Your task to perform on an android device: turn on improve location accuracy Image 0: 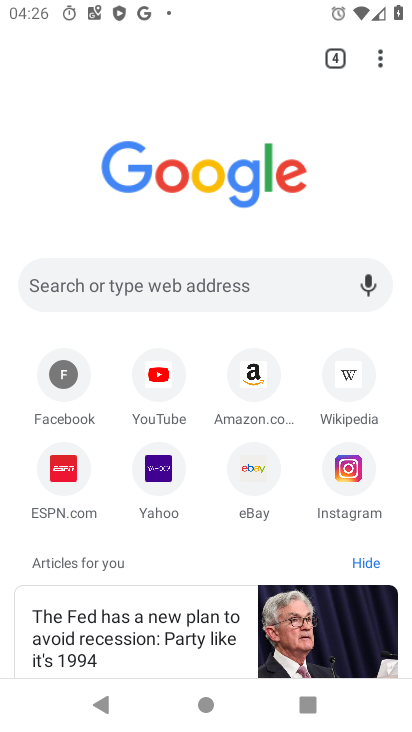
Step 0: click (376, 56)
Your task to perform on an android device: turn on improve location accuracy Image 1: 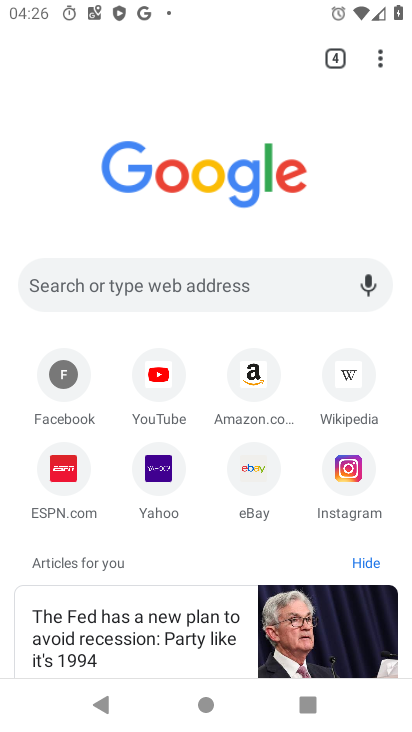
Step 1: click (378, 55)
Your task to perform on an android device: turn on improve location accuracy Image 2: 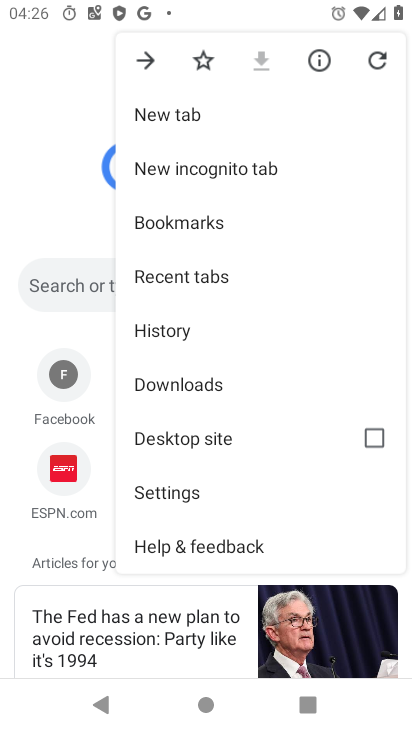
Step 2: click (177, 494)
Your task to perform on an android device: turn on improve location accuracy Image 3: 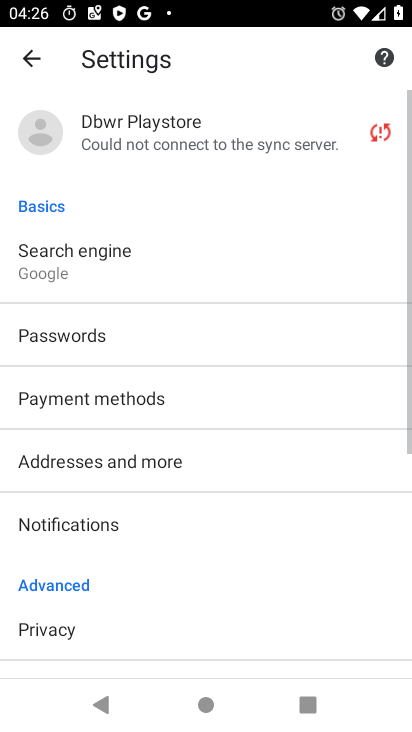
Step 3: press home button
Your task to perform on an android device: turn on improve location accuracy Image 4: 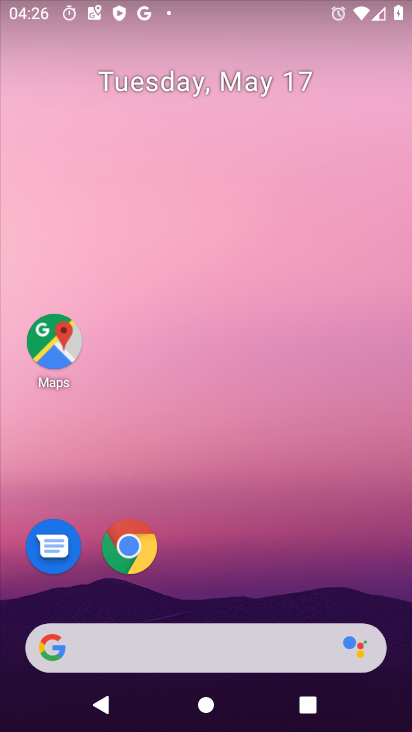
Step 4: click (391, 328)
Your task to perform on an android device: turn on improve location accuracy Image 5: 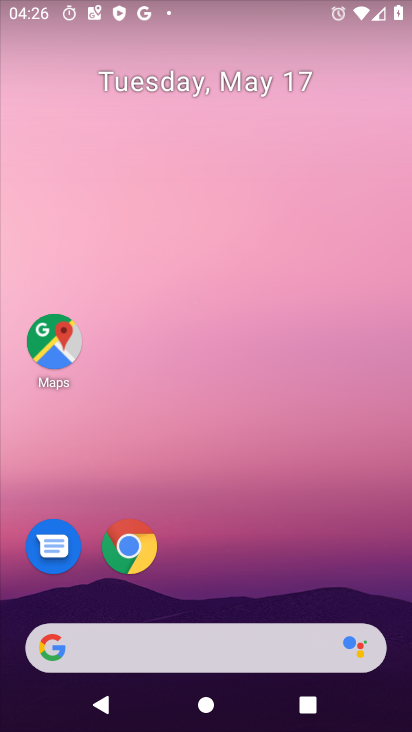
Step 5: drag from (395, 674) to (379, 242)
Your task to perform on an android device: turn on improve location accuracy Image 6: 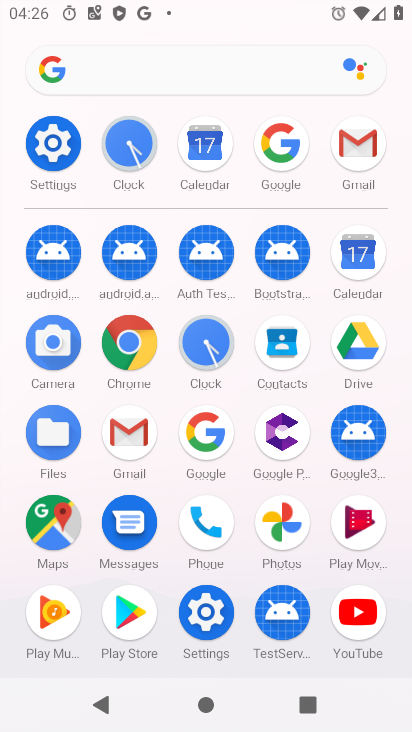
Step 6: click (63, 140)
Your task to perform on an android device: turn on improve location accuracy Image 7: 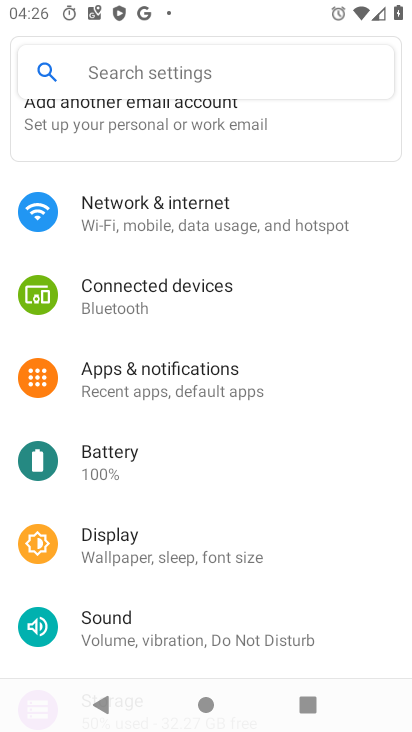
Step 7: drag from (343, 554) to (324, 328)
Your task to perform on an android device: turn on improve location accuracy Image 8: 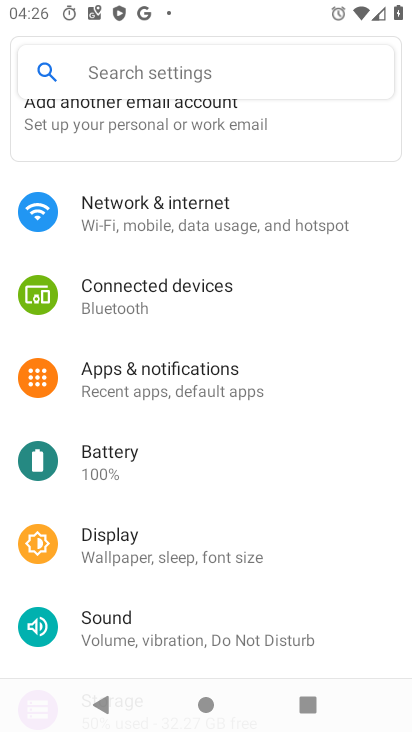
Step 8: drag from (346, 637) to (348, 351)
Your task to perform on an android device: turn on improve location accuracy Image 9: 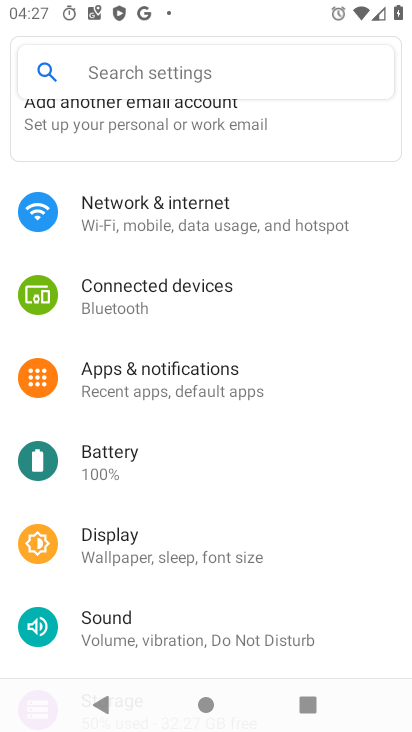
Step 9: drag from (347, 609) to (348, 317)
Your task to perform on an android device: turn on improve location accuracy Image 10: 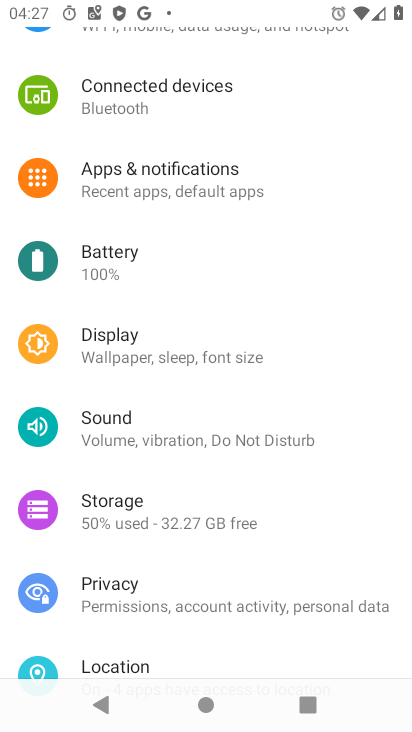
Step 10: click (131, 653)
Your task to perform on an android device: turn on improve location accuracy Image 11: 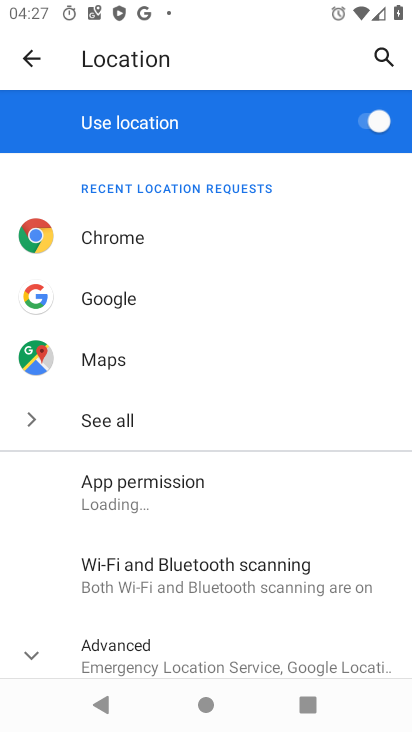
Step 11: drag from (332, 606) to (310, 340)
Your task to perform on an android device: turn on improve location accuracy Image 12: 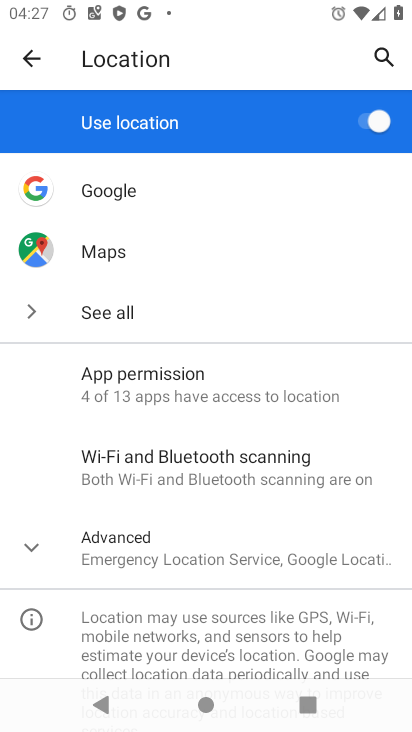
Step 12: click (31, 543)
Your task to perform on an android device: turn on improve location accuracy Image 13: 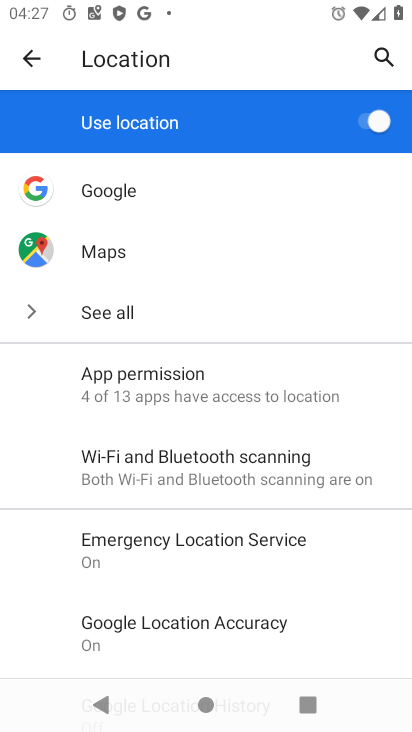
Step 13: drag from (337, 641) to (330, 388)
Your task to perform on an android device: turn on improve location accuracy Image 14: 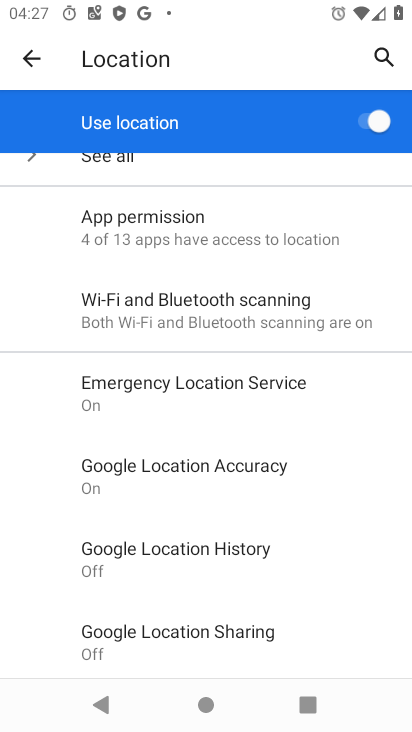
Step 14: click (149, 556)
Your task to perform on an android device: turn on improve location accuracy Image 15: 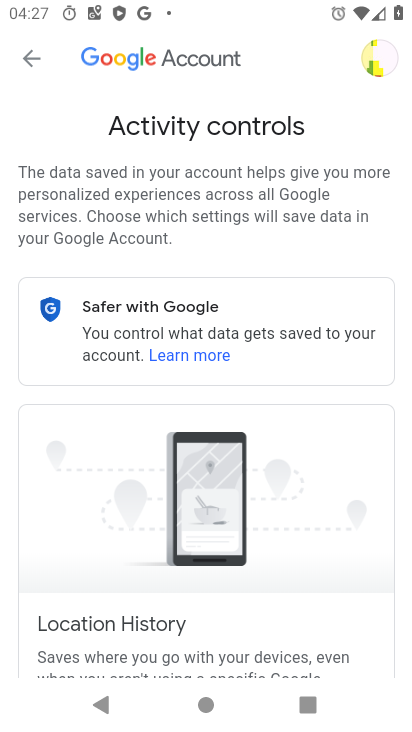
Step 15: drag from (332, 616) to (316, 341)
Your task to perform on an android device: turn on improve location accuracy Image 16: 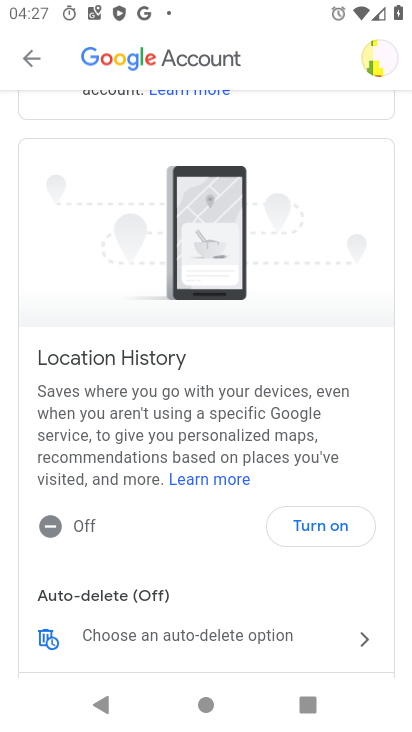
Step 16: click (297, 521)
Your task to perform on an android device: turn on improve location accuracy Image 17: 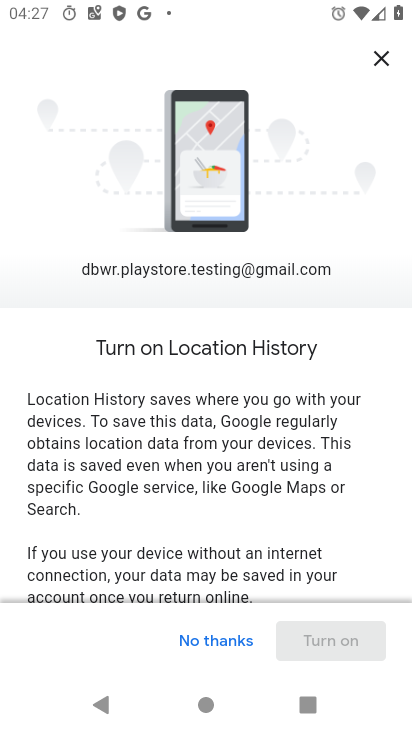
Step 17: drag from (280, 543) to (283, 289)
Your task to perform on an android device: turn on improve location accuracy Image 18: 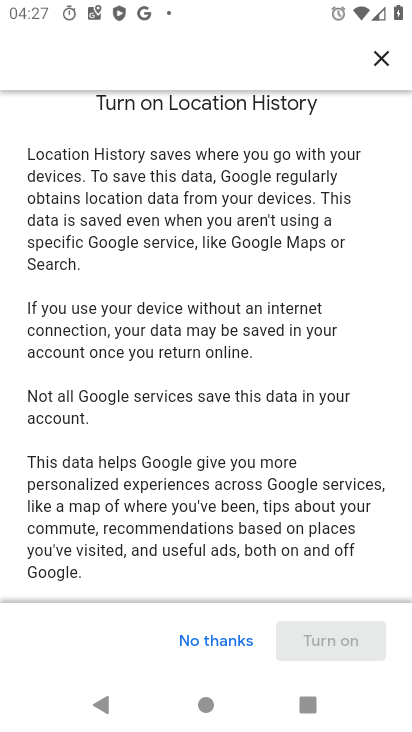
Step 18: drag from (273, 535) to (272, 375)
Your task to perform on an android device: turn on improve location accuracy Image 19: 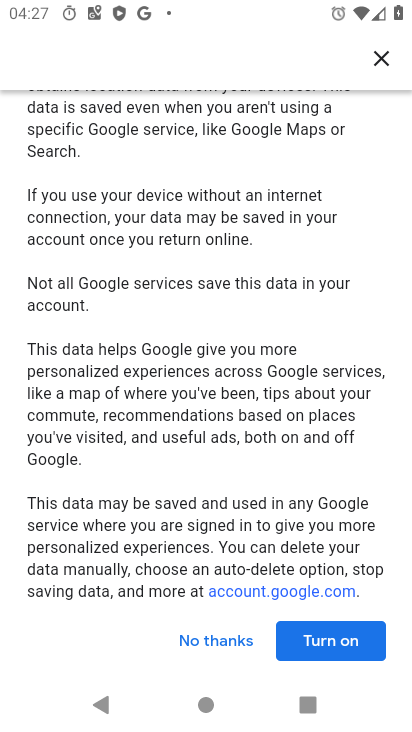
Step 19: click (307, 636)
Your task to perform on an android device: turn on improve location accuracy Image 20: 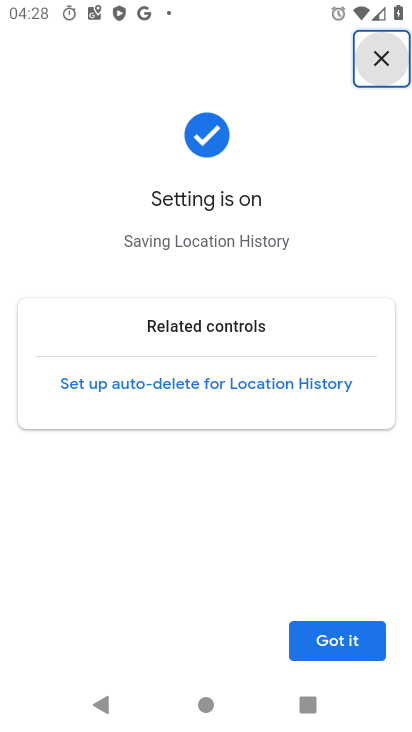
Step 20: click (346, 647)
Your task to perform on an android device: turn on improve location accuracy Image 21: 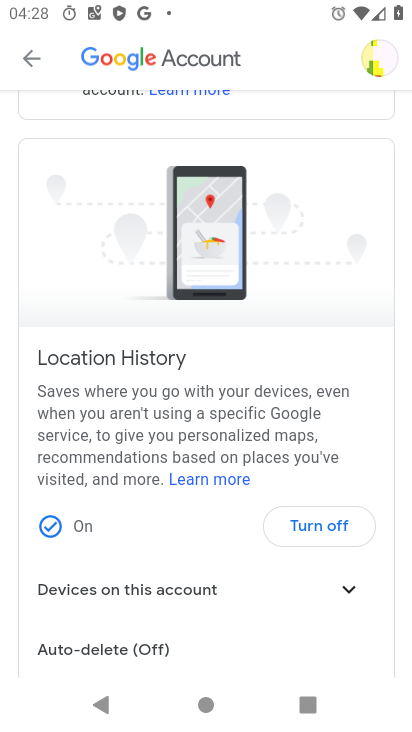
Step 21: task complete